Your task to perform on an android device: What's on my calendar today? Image 0: 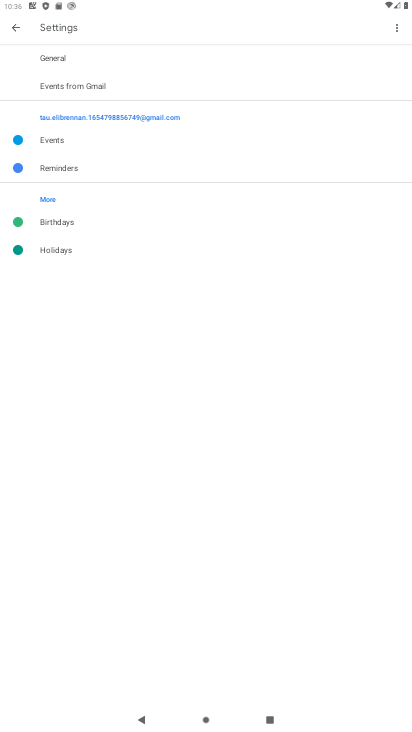
Step 0: press home button
Your task to perform on an android device: What's on my calendar today? Image 1: 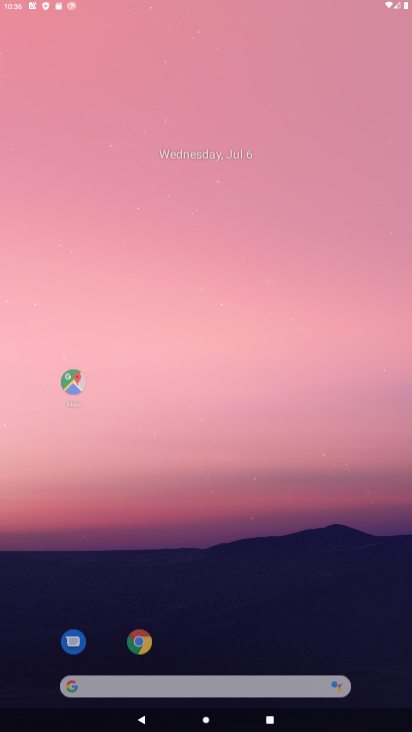
Step 1: drag from (377, 671) to (232, 56)
Your task to perform on an android device: What's on my calendar today? Image 2: 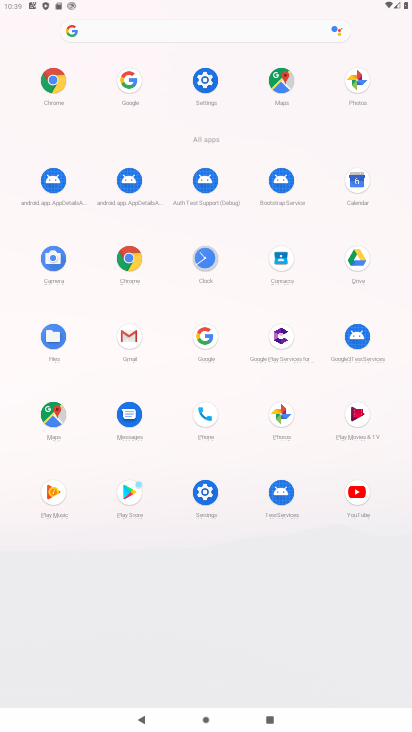
Step 2: click (338, 181)
Your task to perform on an android device: What's on my calendar today? Image 3: 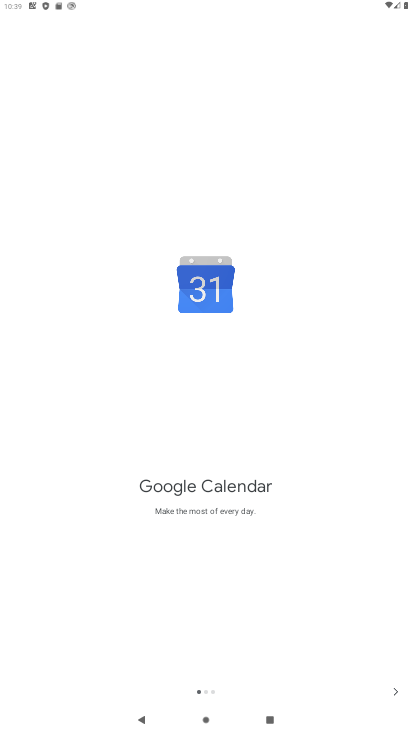
Step 3: click (393, 694)
Your task to perform on an android device: What's on my calendar today? Image 4: 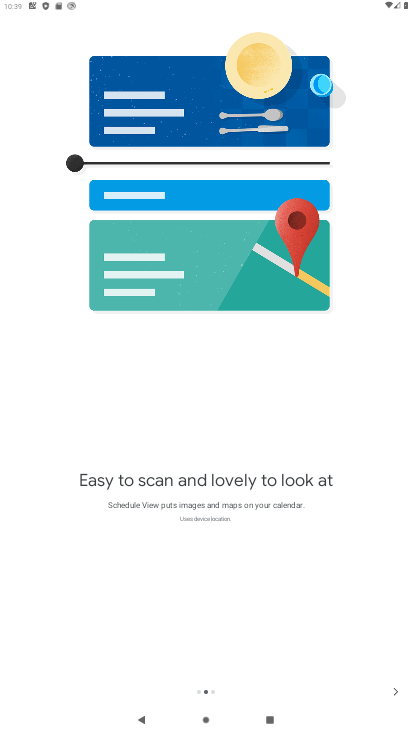
Step 4: click (393, 694)
Your task to perform on an android device: What's on my calendar today? Image 5: 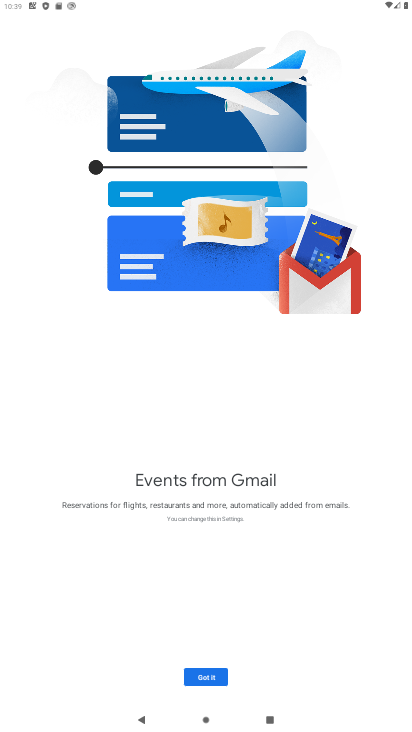
Step 5: click (189, 672)
Your task to perform on an android device: What's on my calendar today? Image 6: 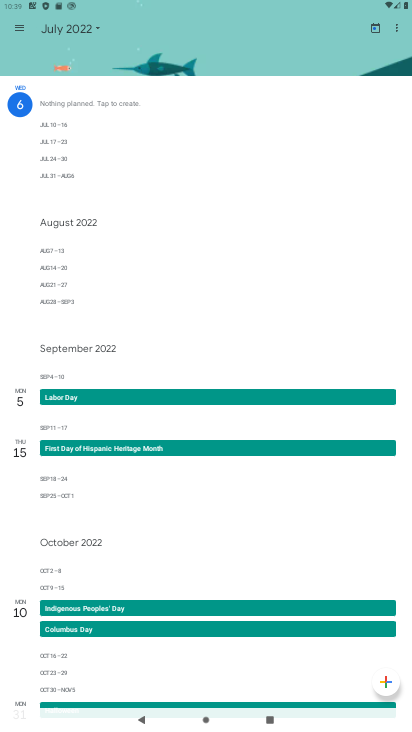
Step 6: click (76, 33)
Your task to perform on an android device: What's on my calendar today? Image 7: 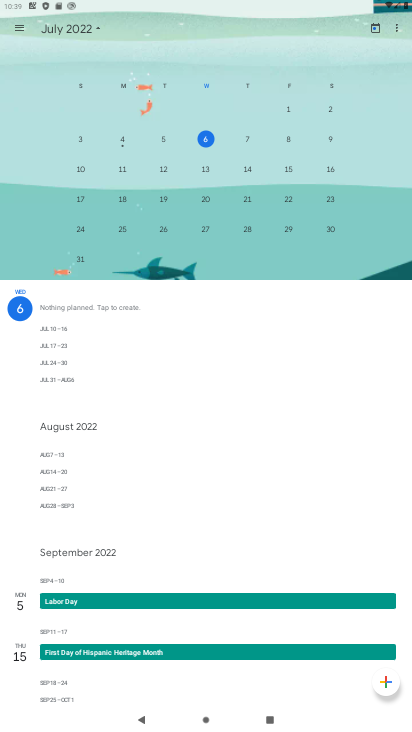
Step 7: click (244, 137)
Your task to perform on an android device: What's on my calendar today? Image 8: 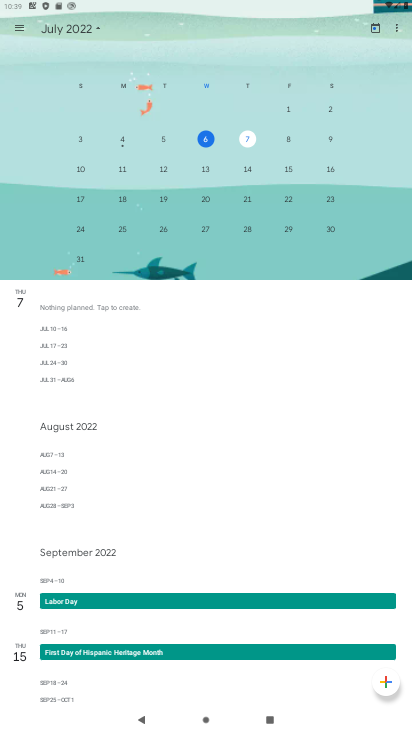
Step 8: click (53, 324)
Your task to perform on an android device: What's on my calendar today? Image 9: 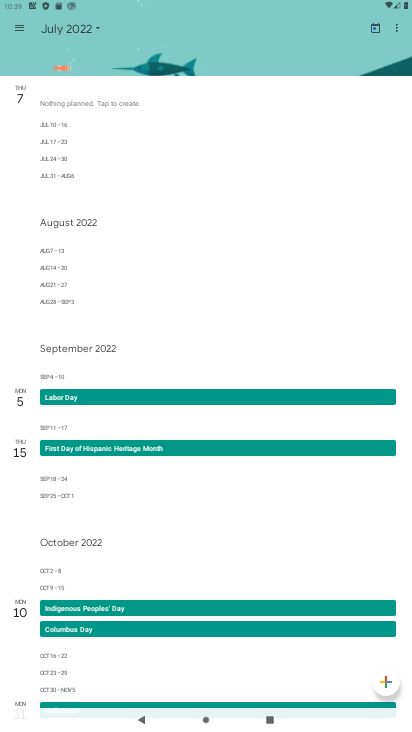
Step 9: task complete